Your task to perform on an android device: install app "Reddit" Image 0: 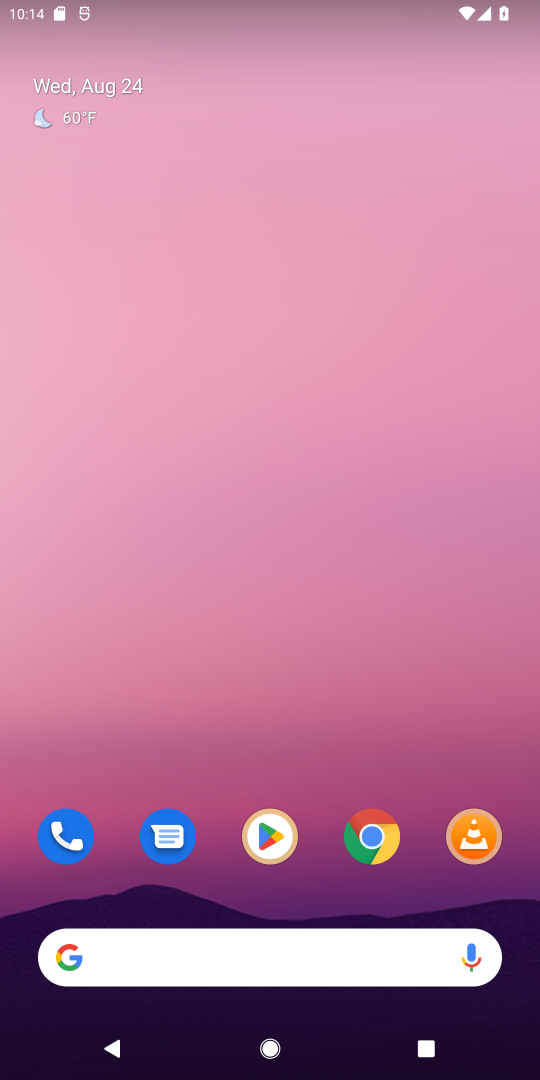
Step 0: click (285, 847)
Your task to perform on an android device: install app "Reddit" Image 1: 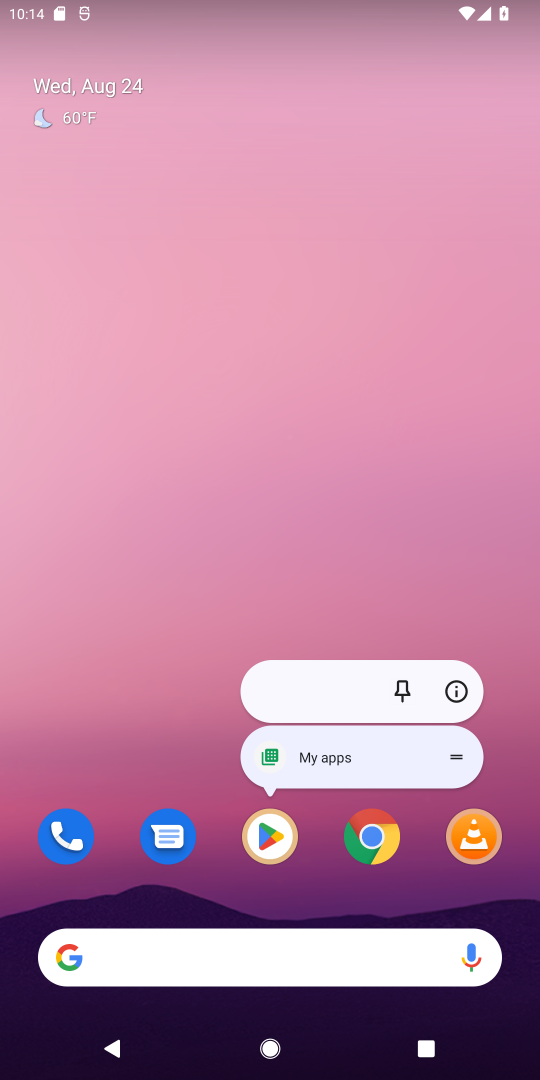
Step 1: click (285, 847)
Your task to perform on an android device: install app "Reddit" Image 2: 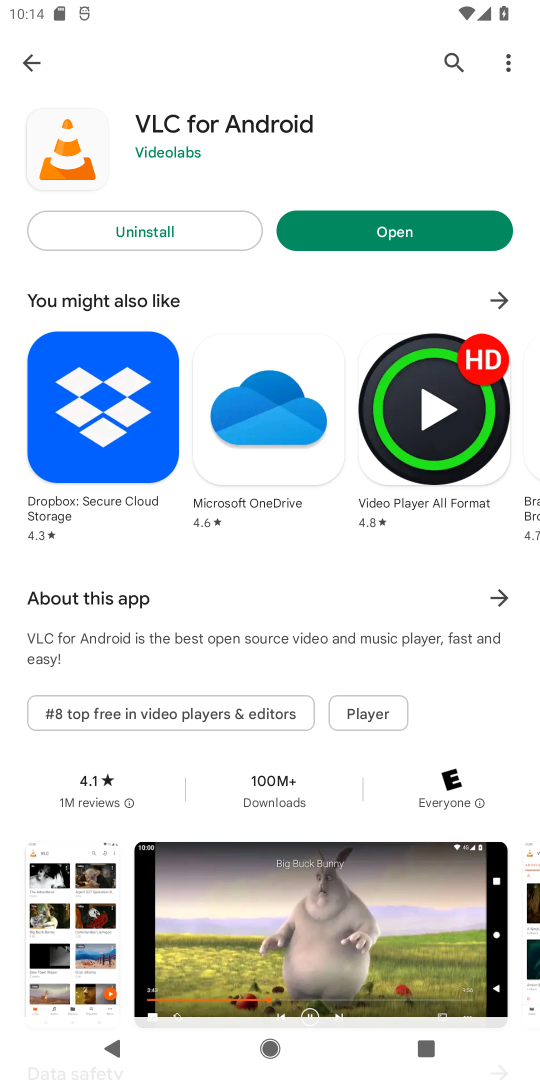
Step 2: click (453, 47)
Your task to perform on an android device: install app "Reddit" Image 3: 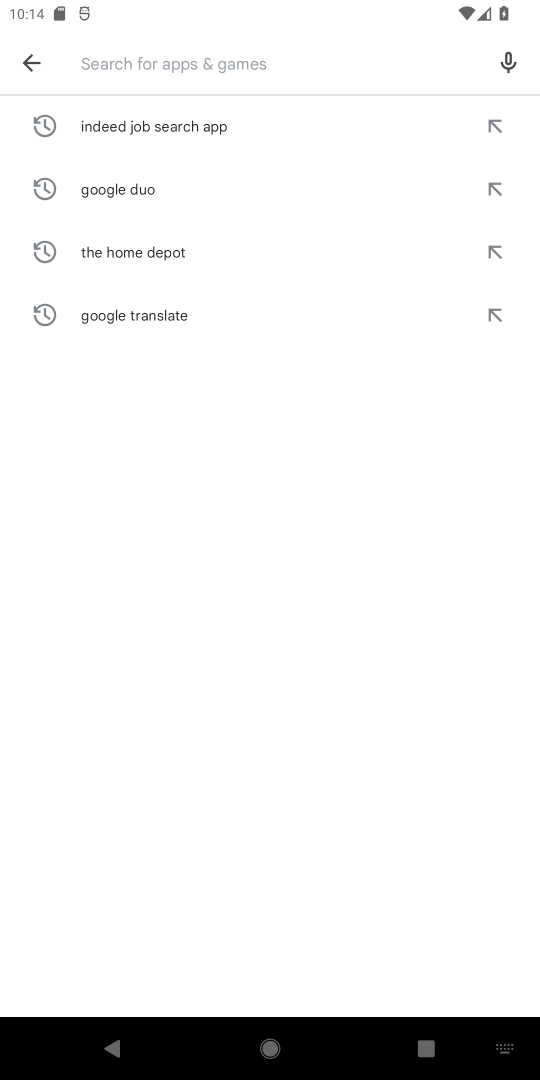
Step 3: type "Reddit"
Your task to perform on an android device: install app "Reddit" Image 4: 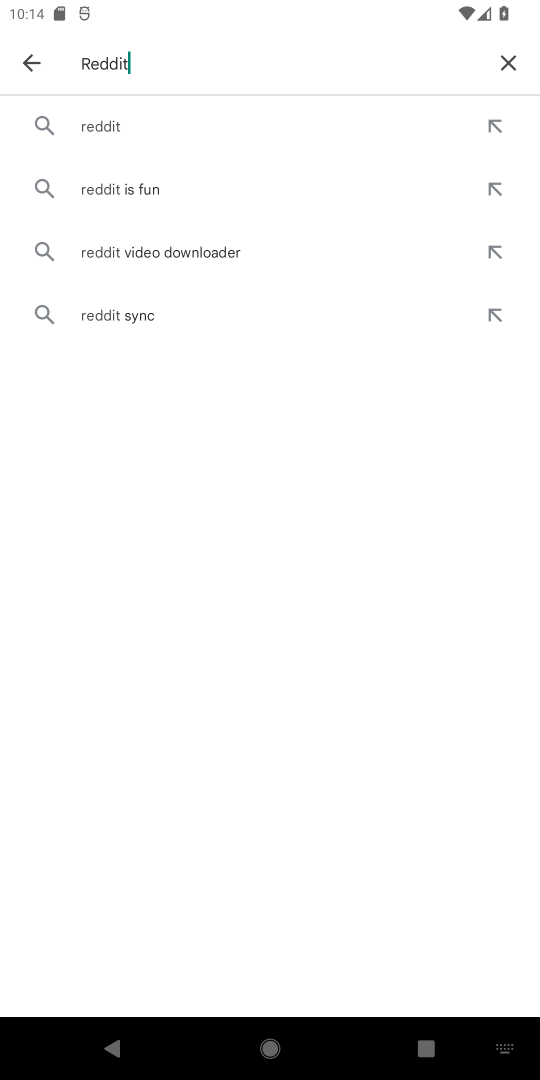
Step 4: type ""
Your task to perform on an android device: install app "Reddit" Image 5: 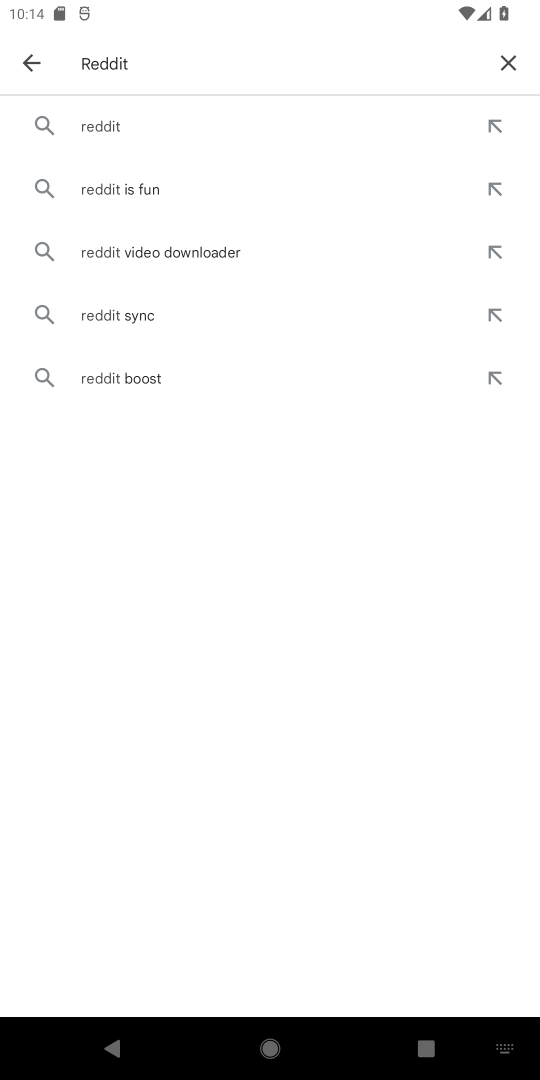
Step 5: click (149, 130)
Your task to perform on an android device: install app "Reddit" Image 6: 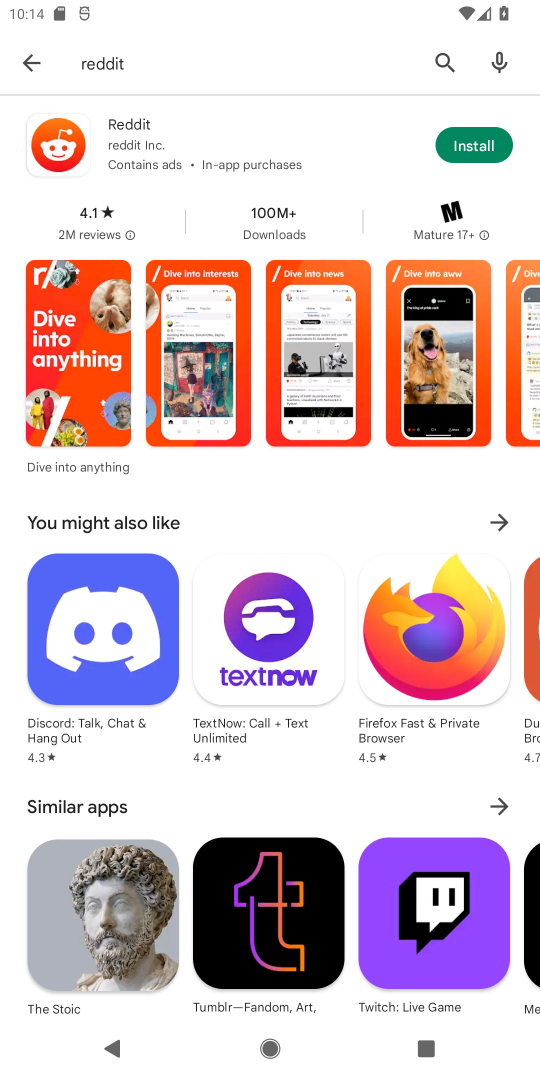
Step 6: click (471, 150)
Your task to perform on an android device: install app "Reddit" Image 7: 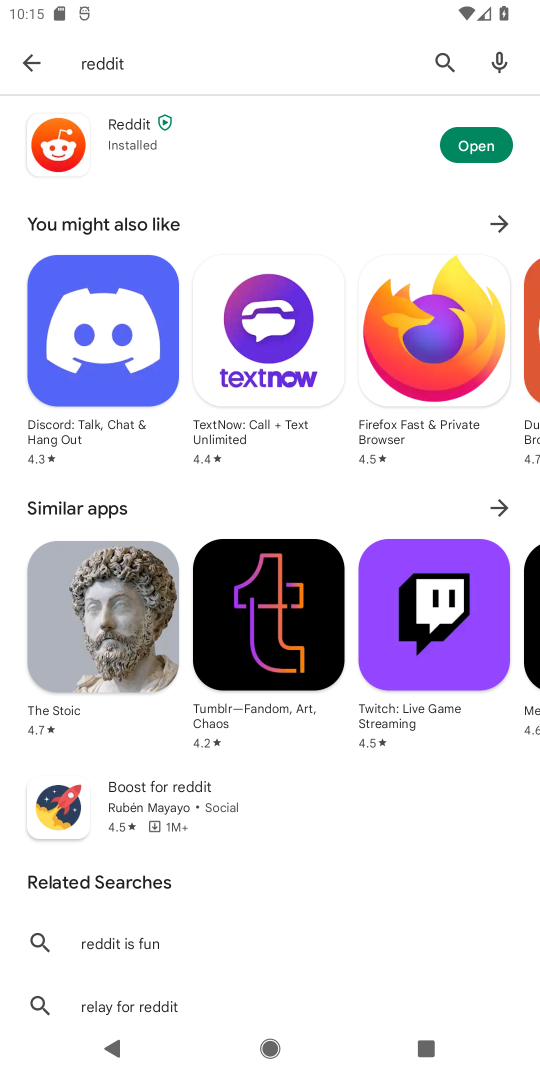
Step 7: task complete